Your task to perform on an android device: toggle airplane mode Image 0: 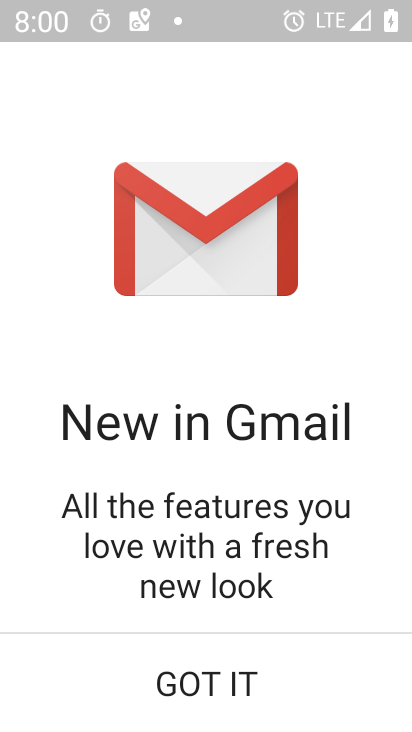
Step 0: press home button
Your task to perform on an android device: toggle airplane mode Image 1: 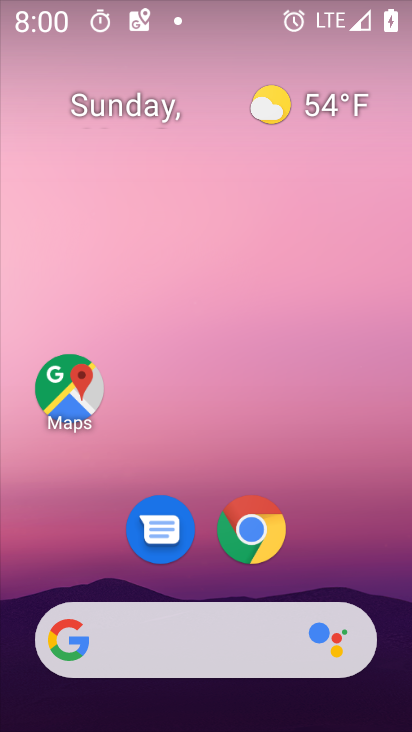
Step 1: drag from (219, 557) to (270, 83)
Your task to perform on an android device: toggle airplane mode Image 2: 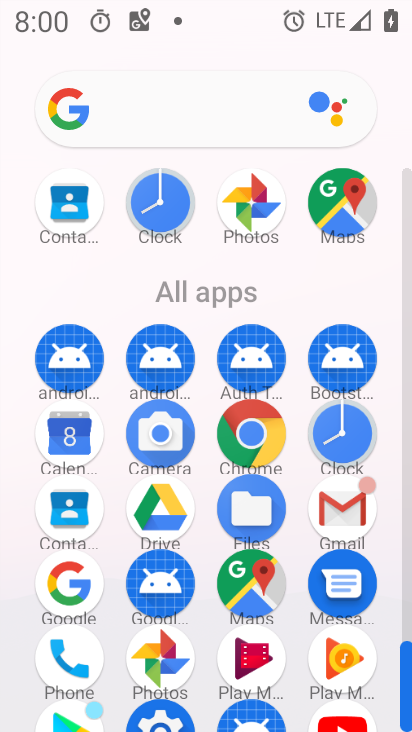
Step 2: drag from (206, 526) to (269, 197)
Your task to perform on an android device: toggle airplane mode Image 3: 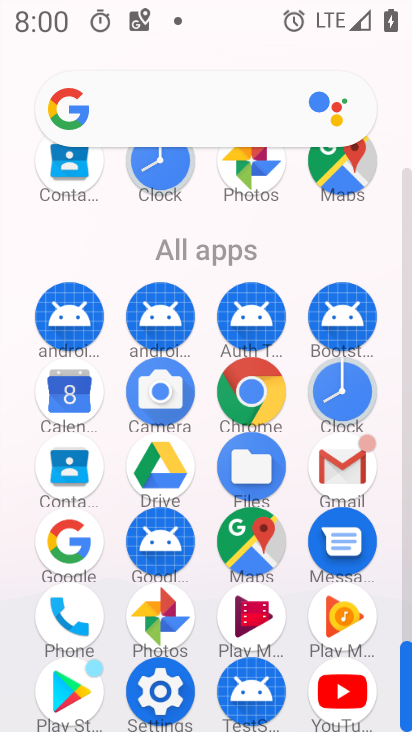
Step 3: click (156, 708)
Your task to perform on an android device: toggle airplane mode Image 4: 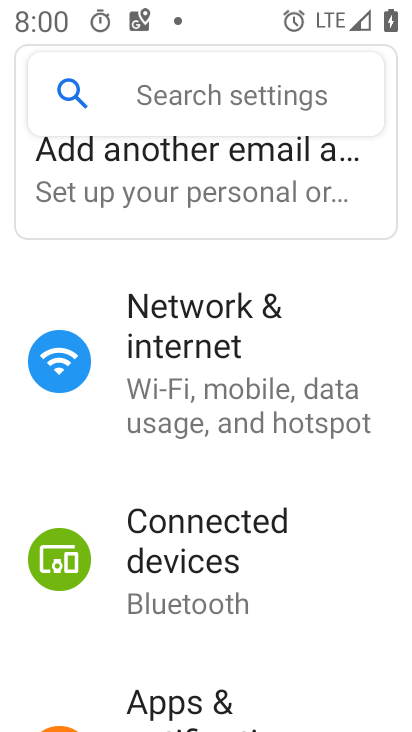
Step 4: click (291, 413)
Your task to perform on an android device: toggle airplane mode Image 5: 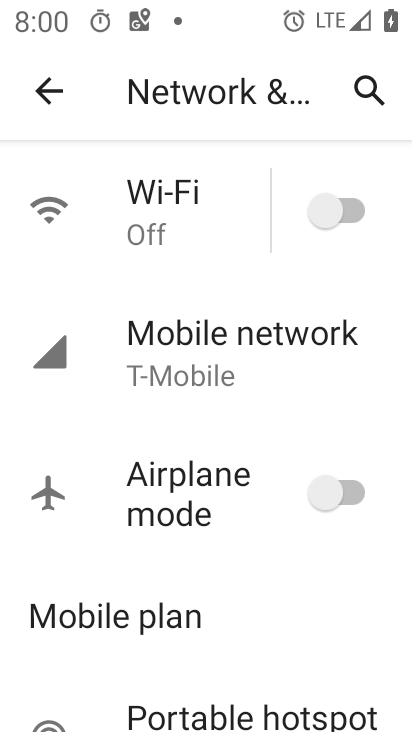
Step 5: click (364, 493)
Your task to perform on an android device: toggle airplane mode Image 6: 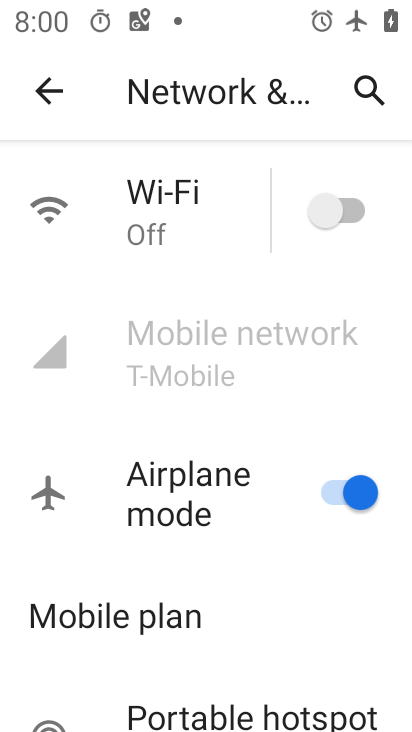
Step 6: task complete